Your task to perform on an android device: Show me some nice wallpapers for my tablet Image 0: 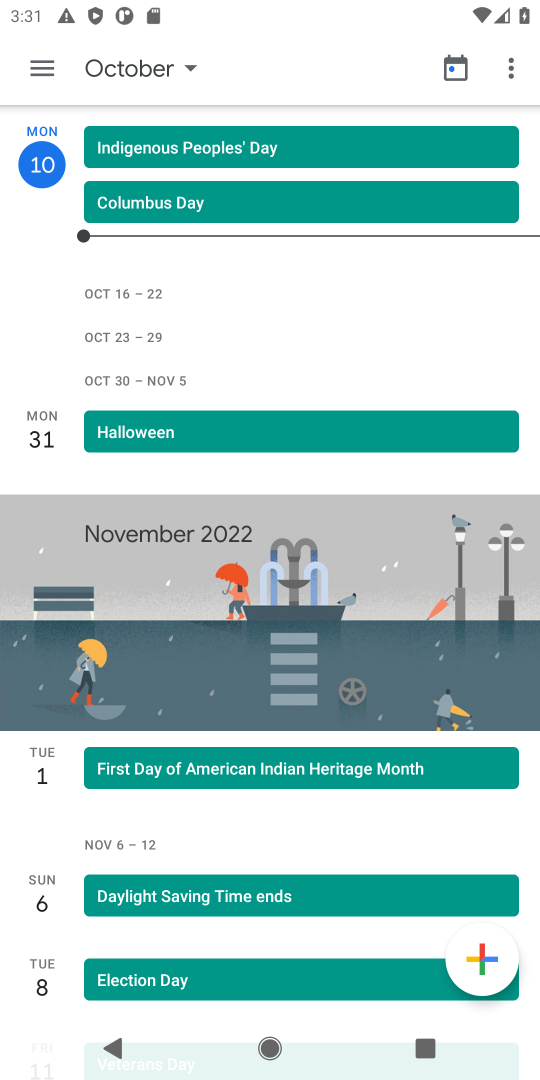
Step 0: click (533, 1061)
Your task to perform on an android device: Show me some nice wallpapers for my tablet Image 1: 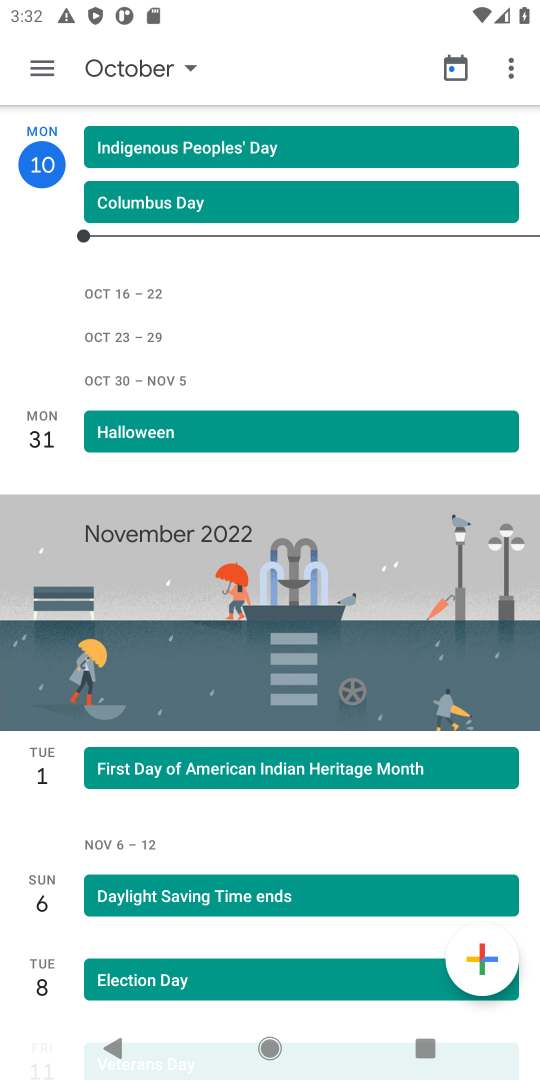
Step 1: press home button
Your task to perform on an android device: Show me some nice wallpapers for my tablet Image 2: 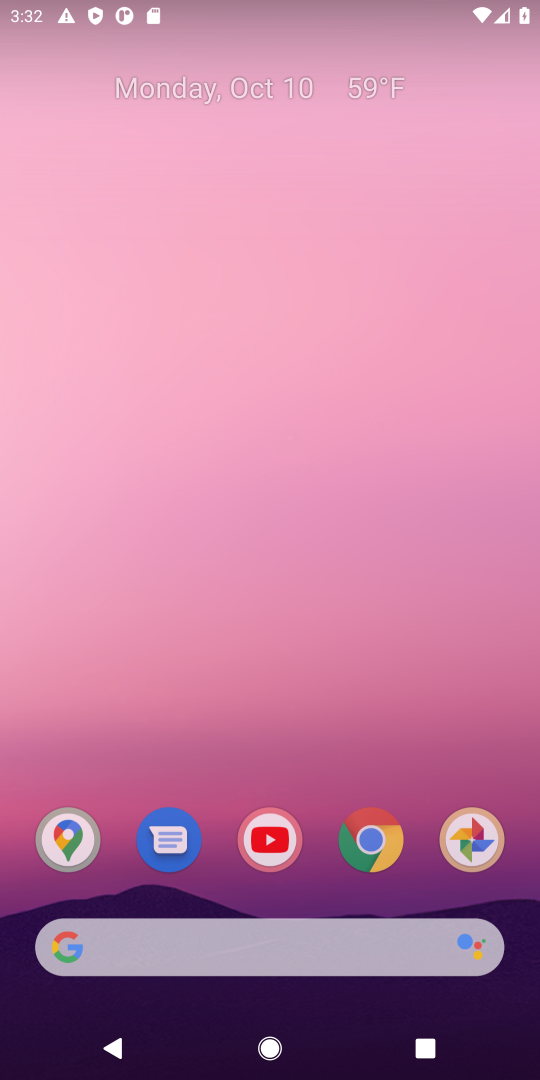
Step 2: drag from (533, 1061) to (533, 744)
Your task to perform on an android device: Show me some nice wallpapers for my tablet Image 3: 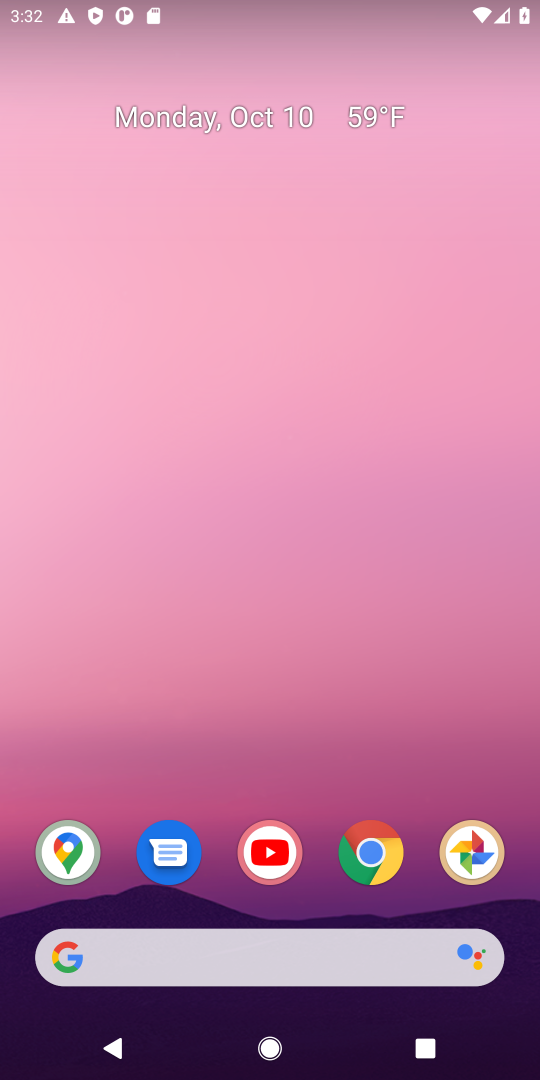
Step 3: click (359, 845)
Your task to perform on an android device: Show me some nice wallpapers for my tablet Image 4: 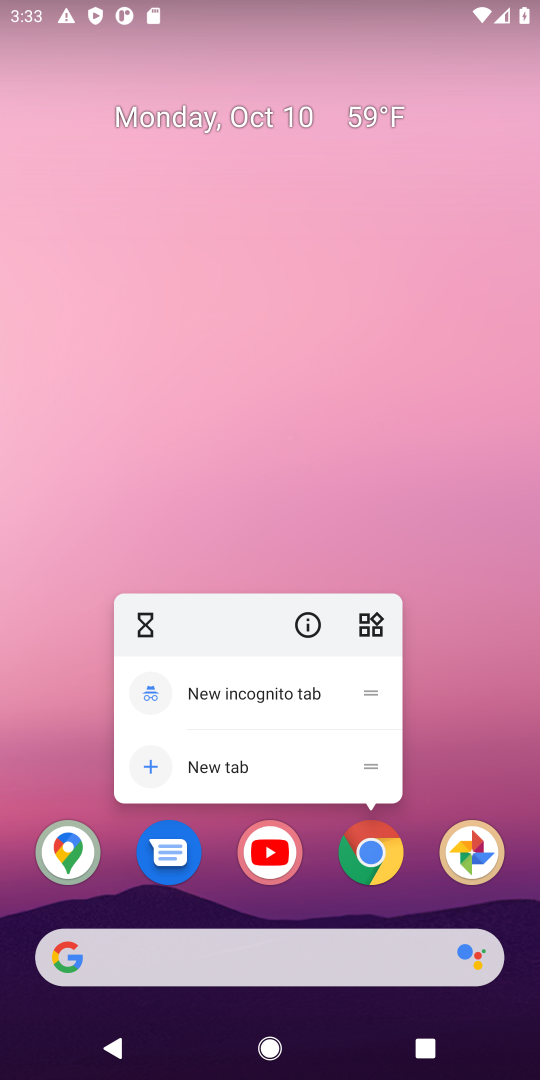
Step 4: click (371, 851)
Your task to perform on an android device: Show me some nice wallpapers for my tablet Image 5: 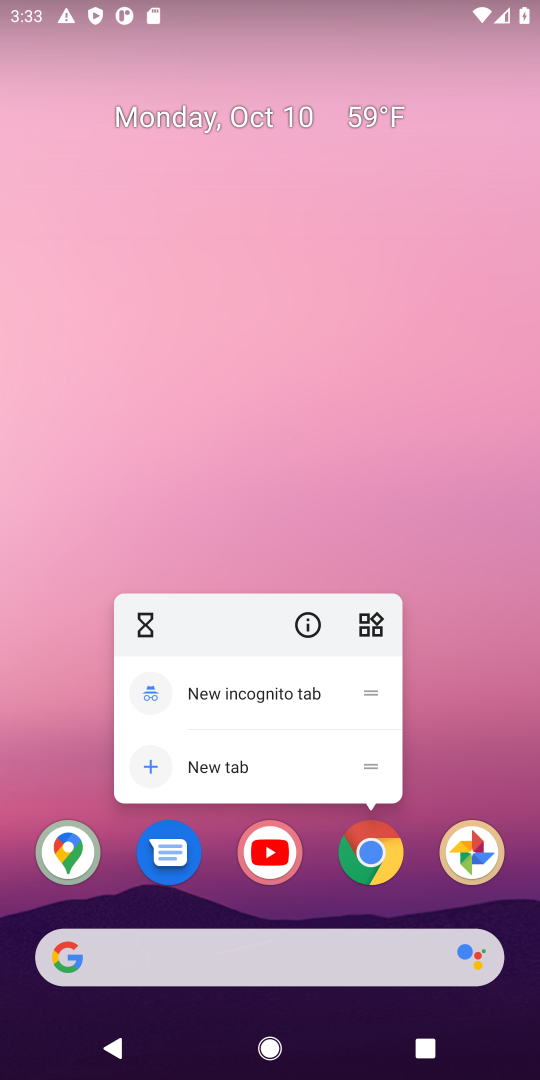
Step 5: click (390, 865)
Your task to perform on an android device: Show me some nice wallpapers for my tablet Image 6: 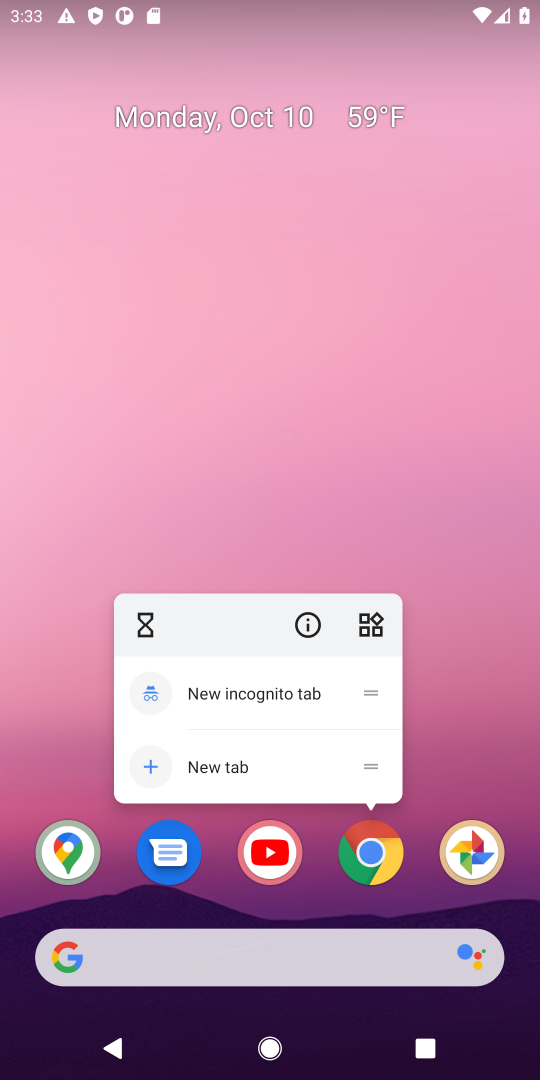
Step 6: click (368, 849)
Your task to perform on an android device: Show me some nice wallpapers for my tablet Image 7: 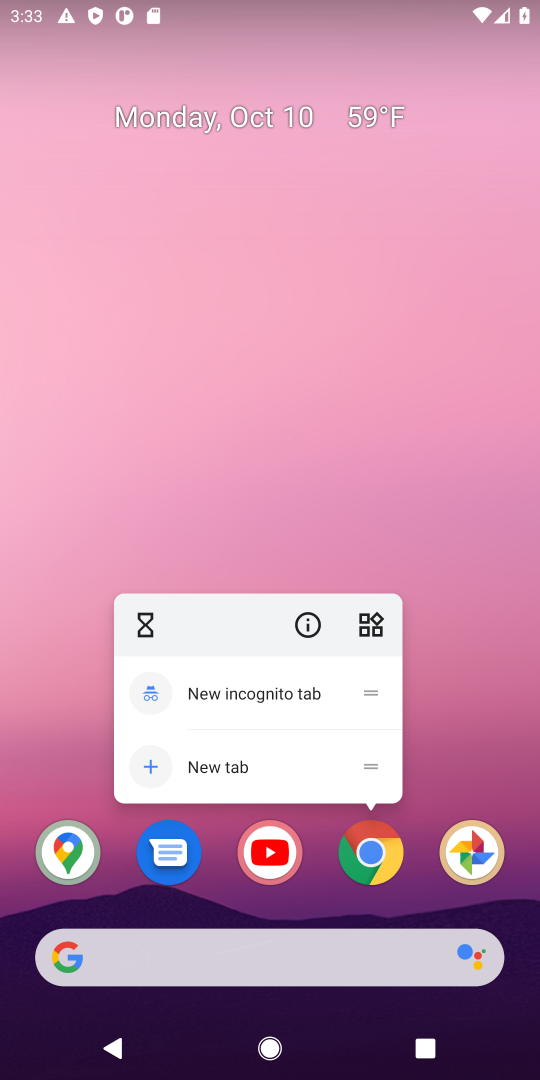
Step 7: click (368, 849)
Your task to perform on an android device: Show me some nice wallpapers for my tablet Image 8: 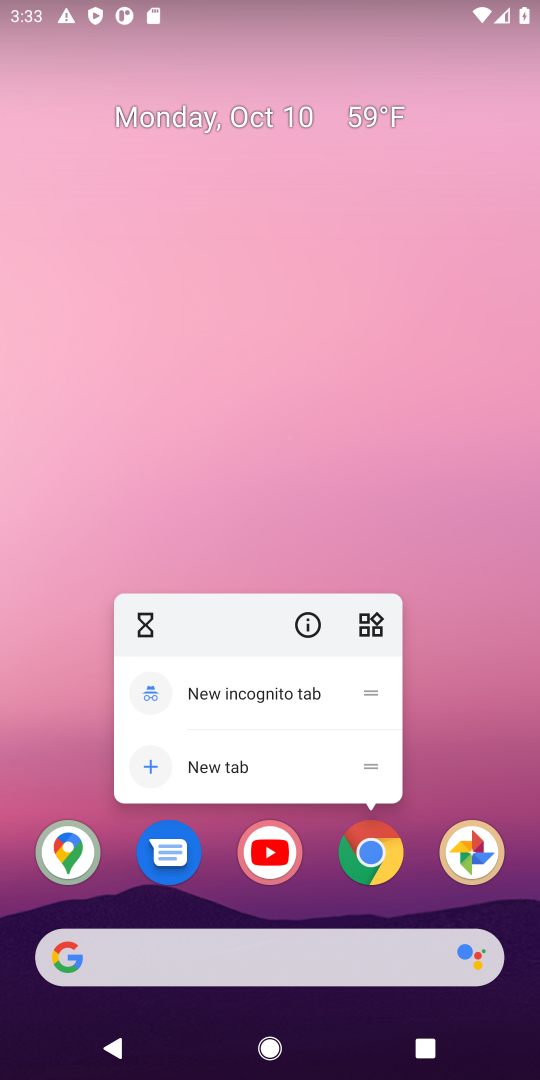
Step 8: click (372, 850)
Your task to perform on an android device: Show me some nice wallpapers for my tablet Image 9: 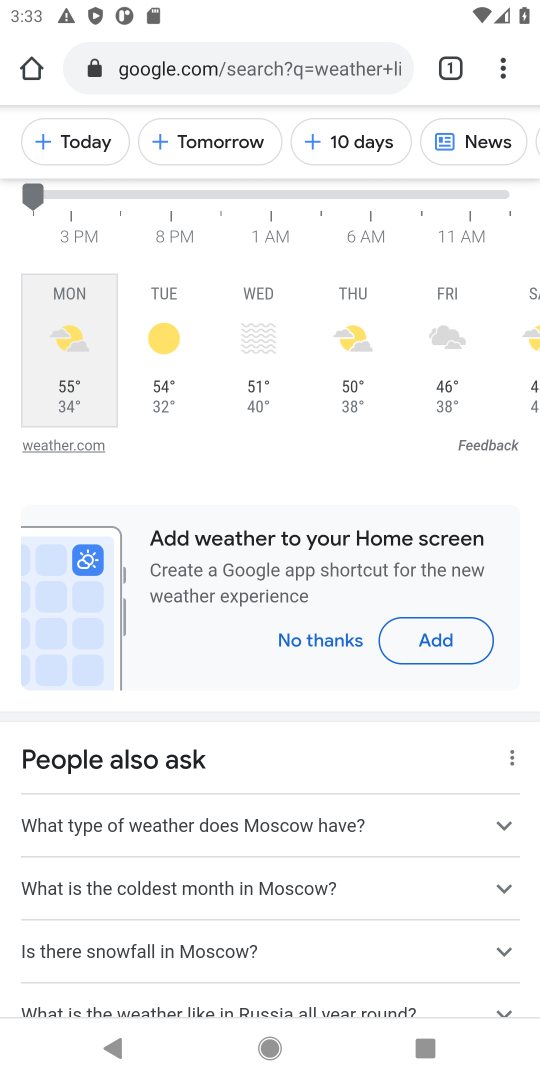
Step 9: click (170, 69)
Your task to perform on an android device: Show me some nice wallpapers for my tablet Image 10: 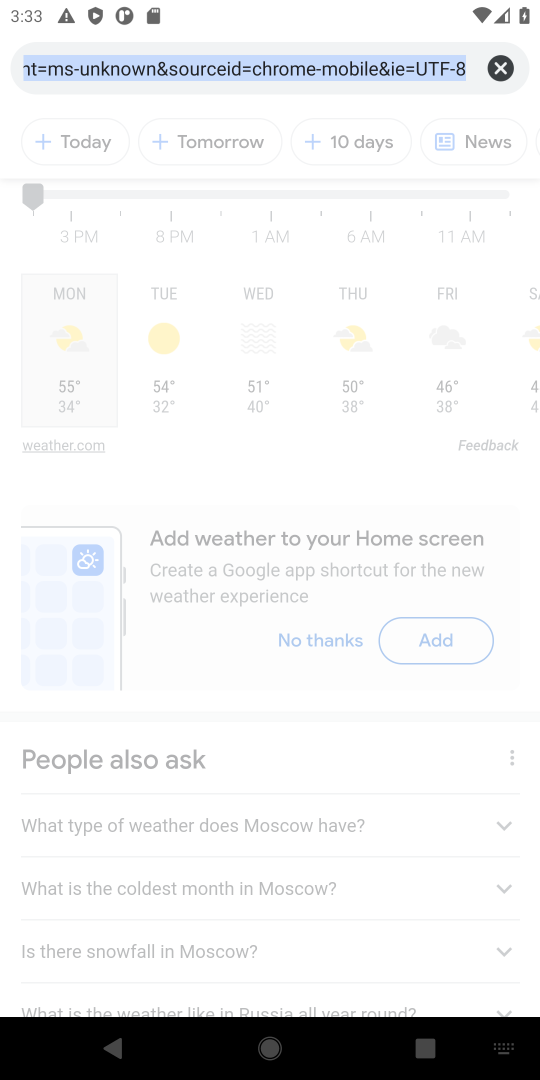
Step 10: type "some nice wallpapers for my tablet"
Your task to perform on an android device: Show me some nice wallpapers for my tablet Image 11: 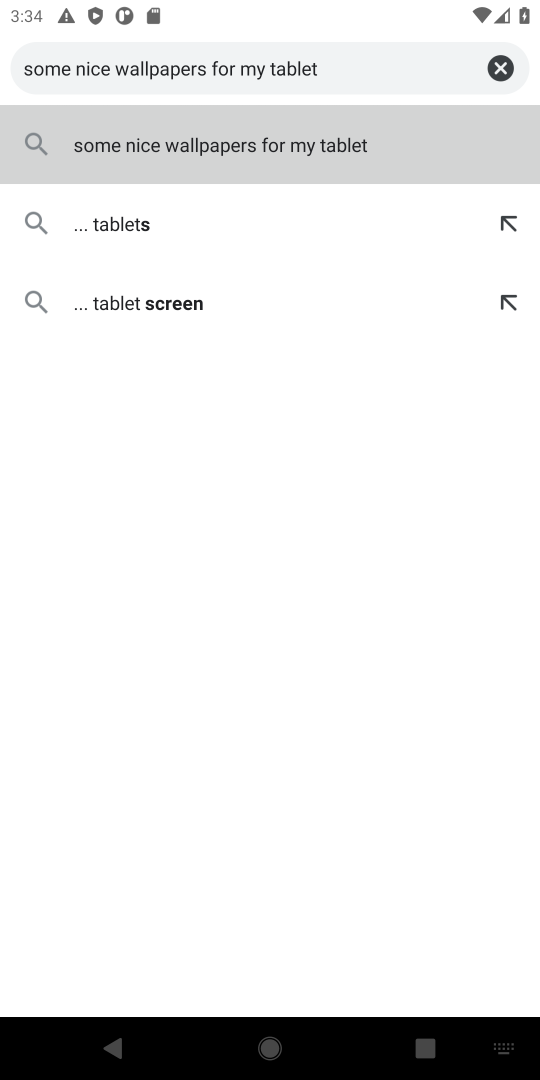
Step 11: type ""
Your task to perform on an android device: Show me some nice wallpapers for my tablet Image 12: 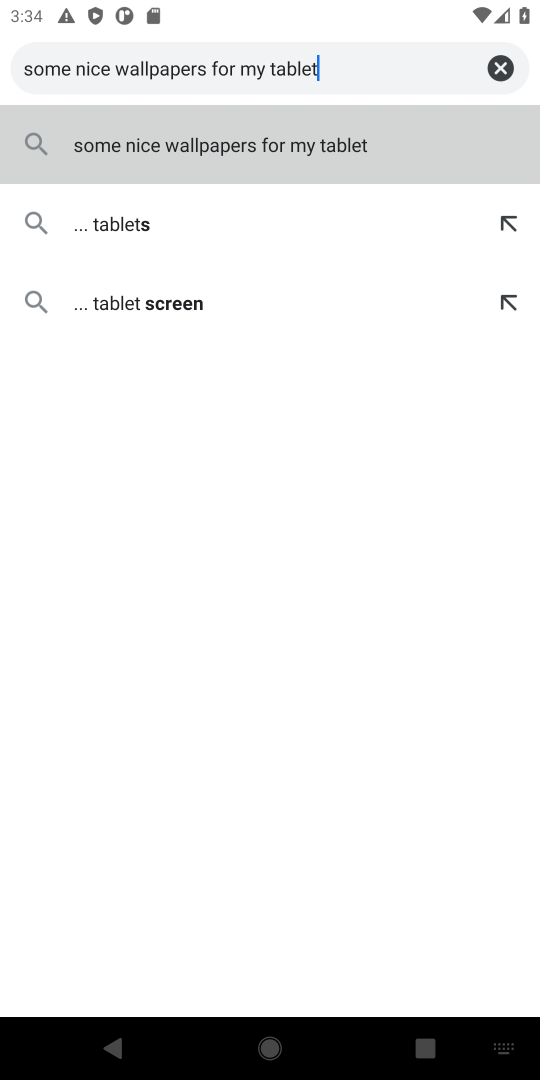
Step 12: click (265, 134)
Your task to perform on an android device: Show me some nice wallpapers for my tablet Image 13: 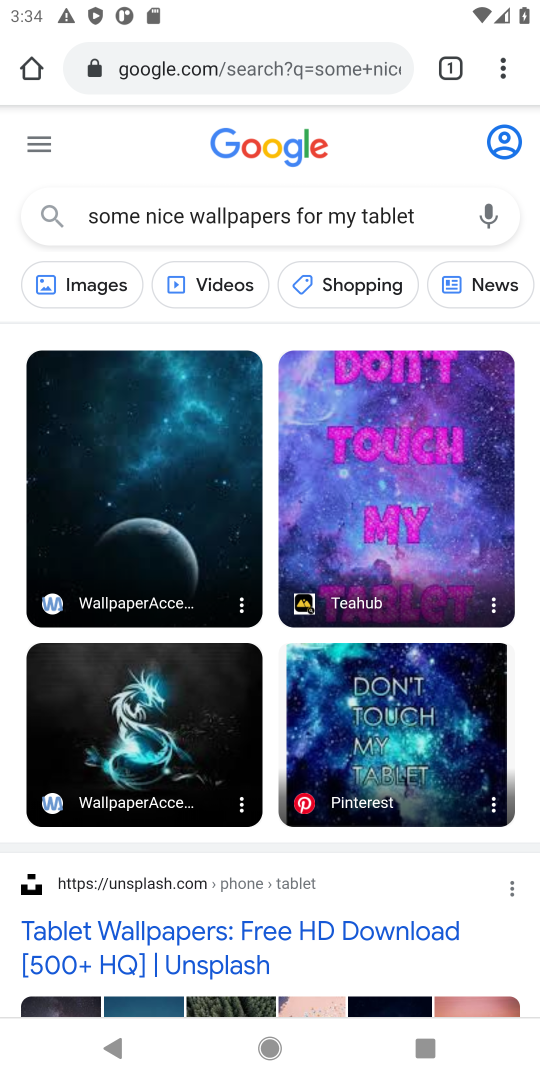
Step 13: task complete